Your task to perform on an android device: turn on priority inbox in the gmail app Image 0: 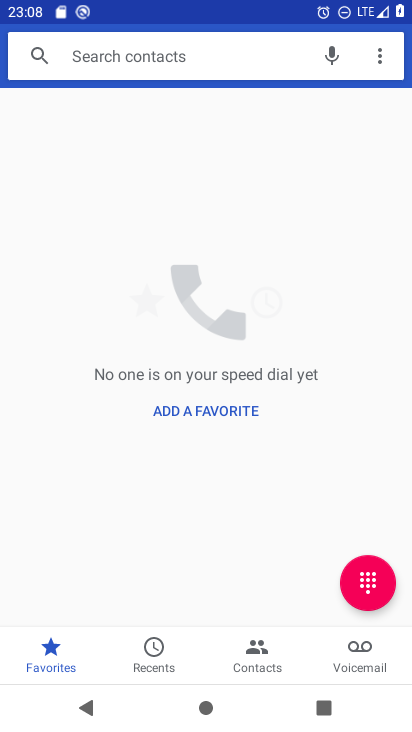
Step 0: press home button
Your task to perform on an android device: turn on priority inbox in the gmail app Image 1: 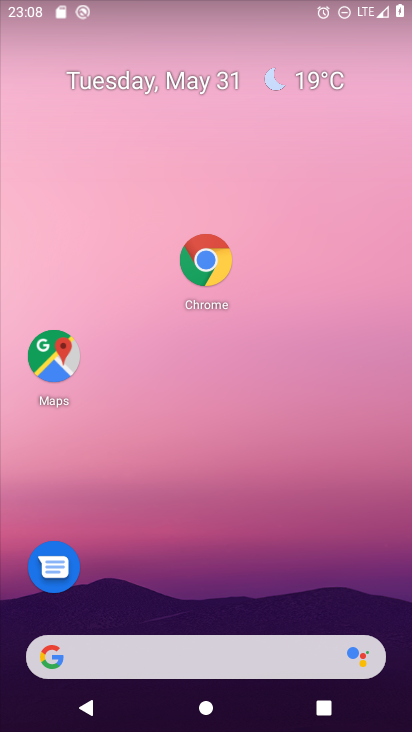
Step 1: drag from (174, 646) to (206, 193)
Your task to perform on an android device: turn on priority inbox in the gmail app Image 2: 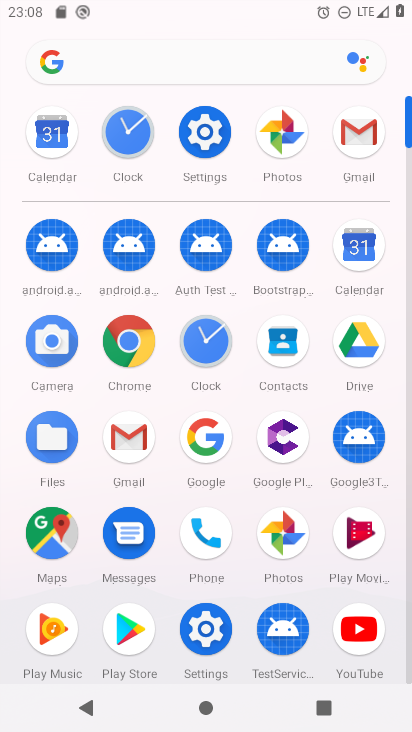
Step 2: click (360, 133)
Your task to perform on an android device: turn on priority inbox in the gmail app Image 3: 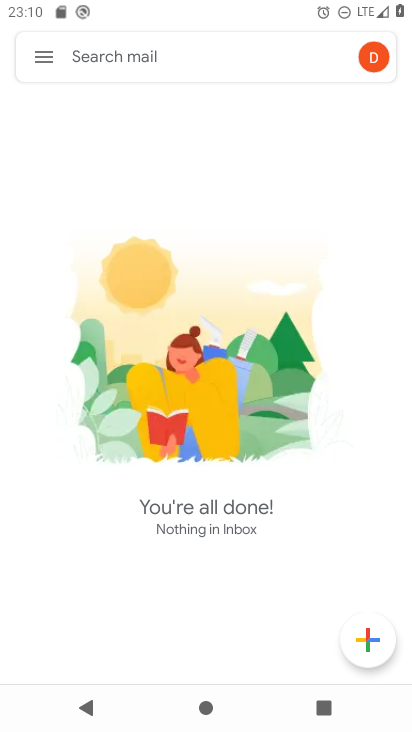
Step 3: click (43, 61)
Your task to perform on an android device: turn on priority inbox in the gmail app Image 4: 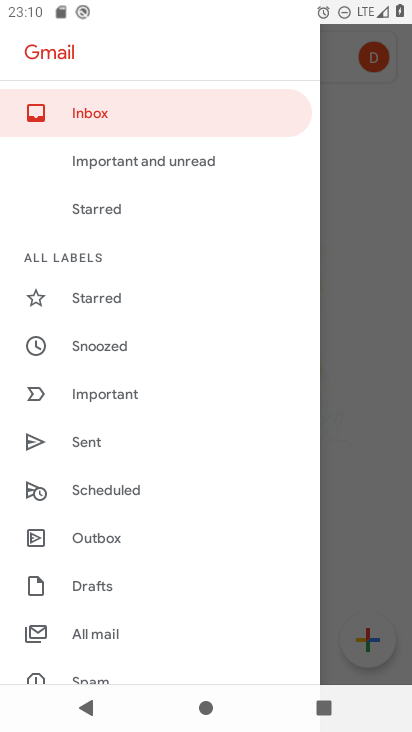
Step 4: drag from (90, 647) to (87, 190)
Your task to perform on an android device: turn on priority inbox in the gmail app Image 5: 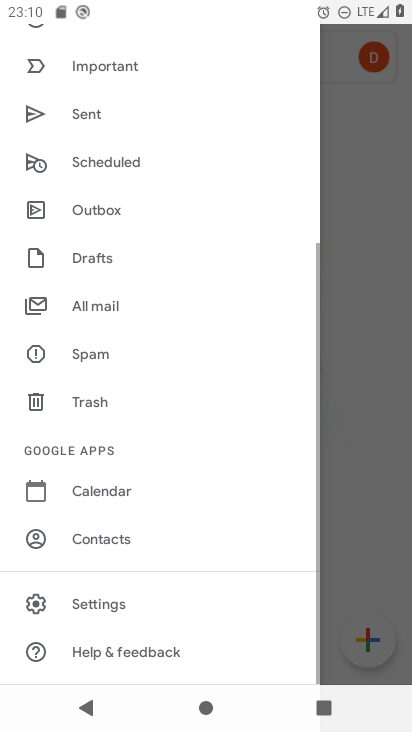
Step 5: click (93, 612)
Your task to perform on an android device: turn on priority inbox in the gmail app Image 6: 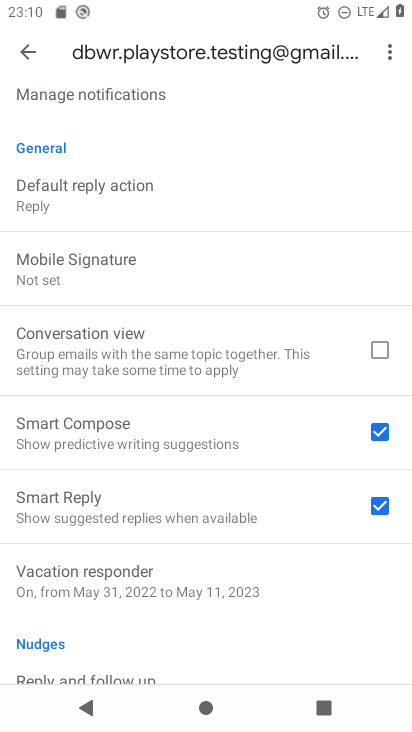
Step 6: drag from (74, 528) to (74, 300)
Your task to perform on an android device: turn on priority inbox in the gmail app Image 7: 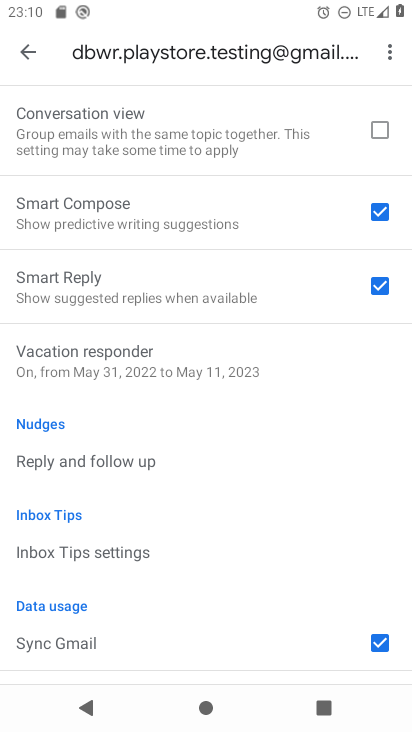
Step 7: drag from (79, 111) to (103, 541)
Your task to perform on an android device: turn on priority inbox in the gmail app Image 8: 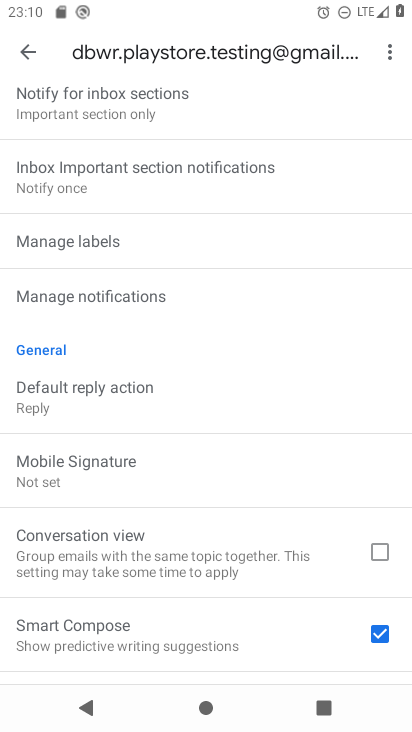
Step 8: drag from (62, 143) to (70, 592)
Your task to perform on an android device: turn on priority inbox in the gmail app Image 9: 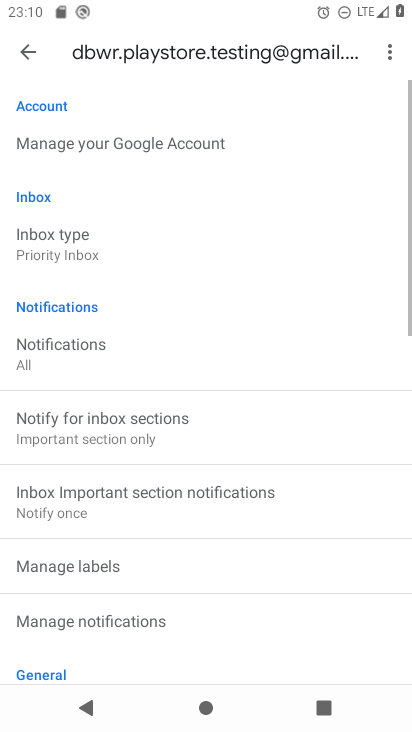
Step 9: click (71, 246)
Your task to perform on an android device: turn on priority inbox in the gmail app Image 10: 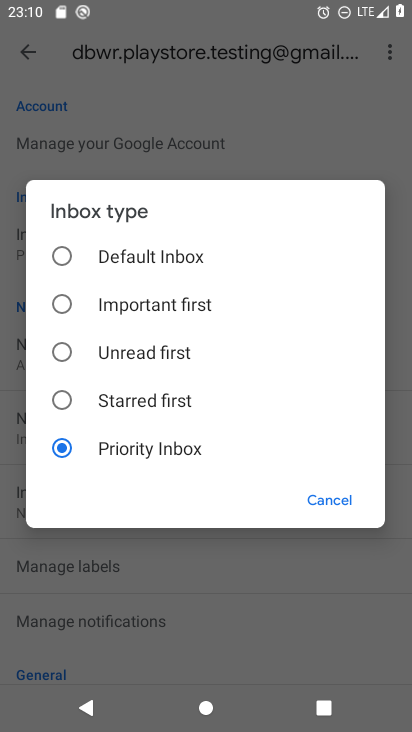
Step 10: task complete